Your task to perform on an android device: check data usage Image 0: 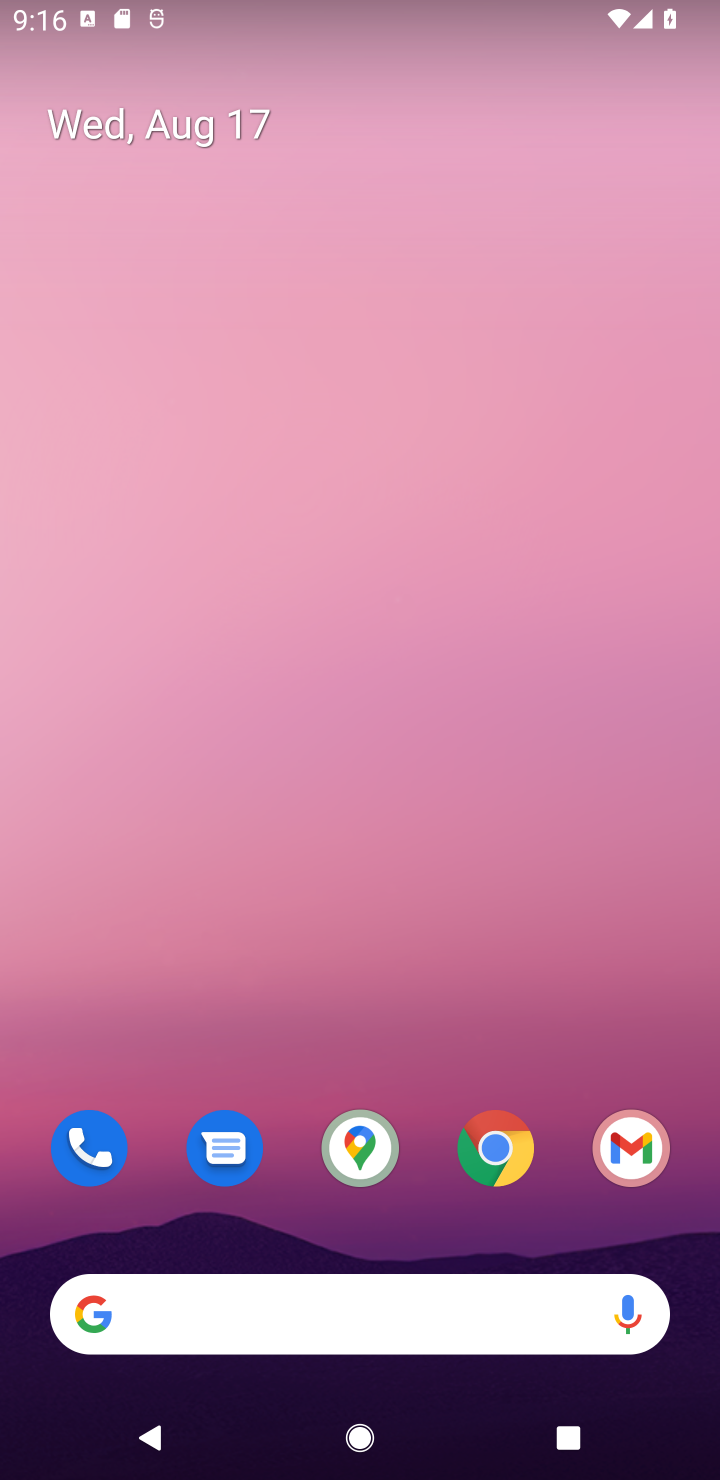
Step 0: drag from (550, 1238) to (592, 272)
Your task to perform on an android device: check data usage Image 1: 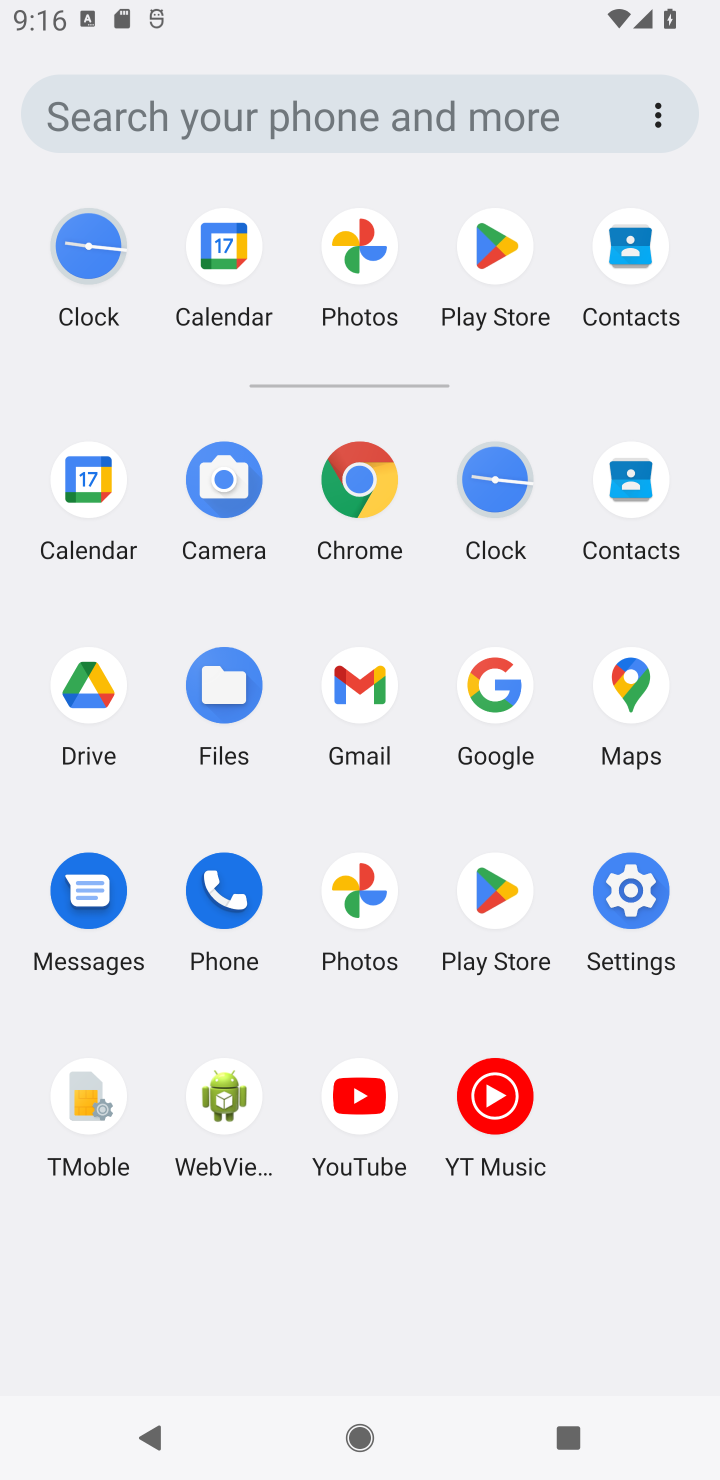
Step 1: click (633, 900)
Your task to perform on an android device: check data usage Image 2: 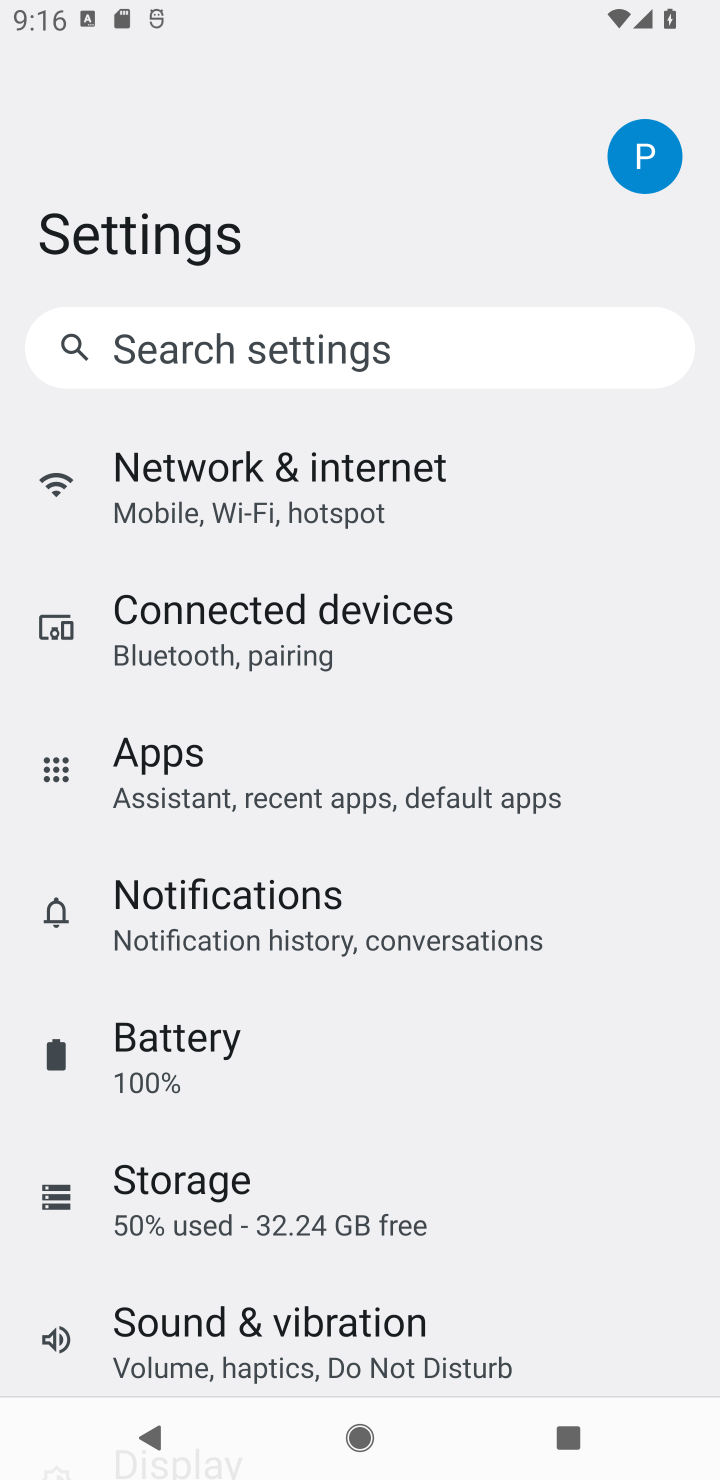
Step 2: click (205, 471)
Your task to perform on an android device: check data usage Image 3: 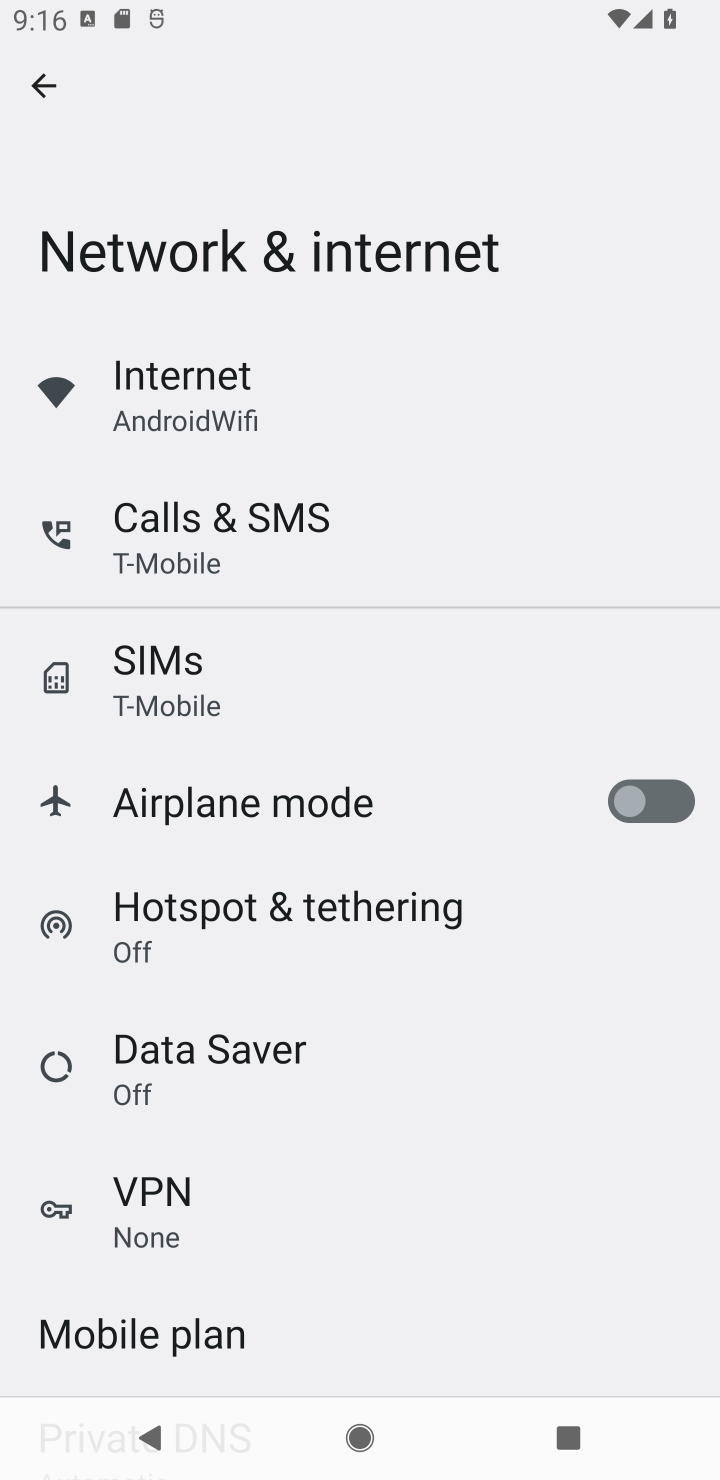
Step 3: click (191, 381)
Your task to perform on an android device: check data usage Image 4: 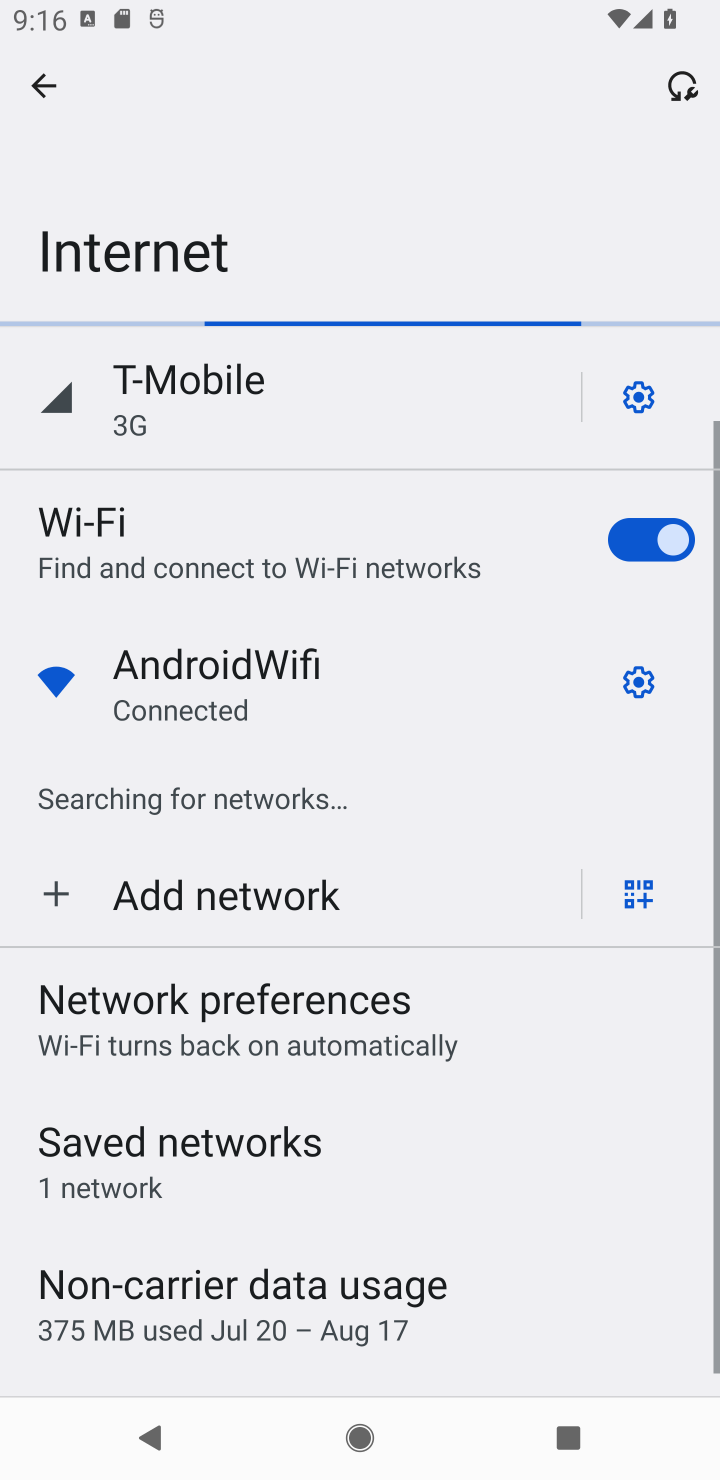
Step 4: click (640, 402)
Your task to perform on an android device: check data usage Image 5: 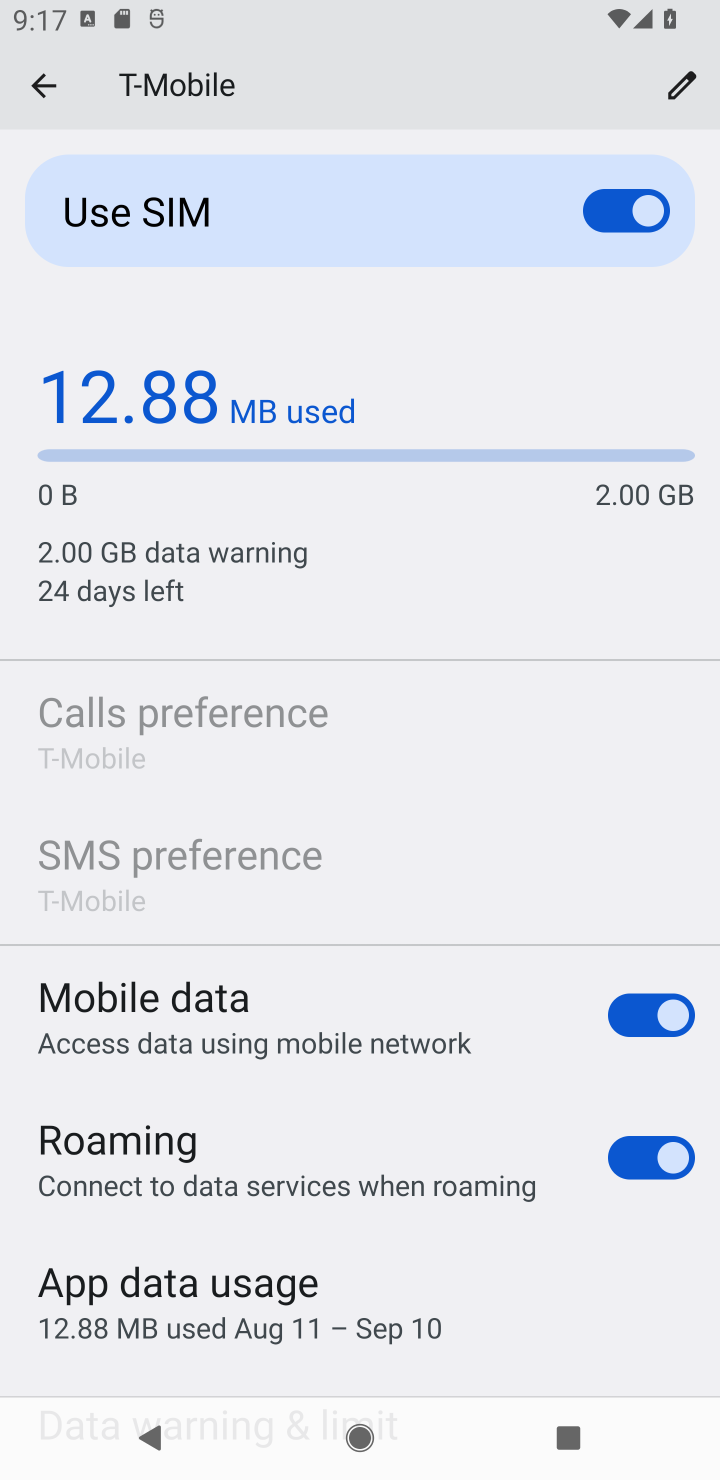
Step 5: task complete